Your task to perform on an android device: Open network settings Image 0: 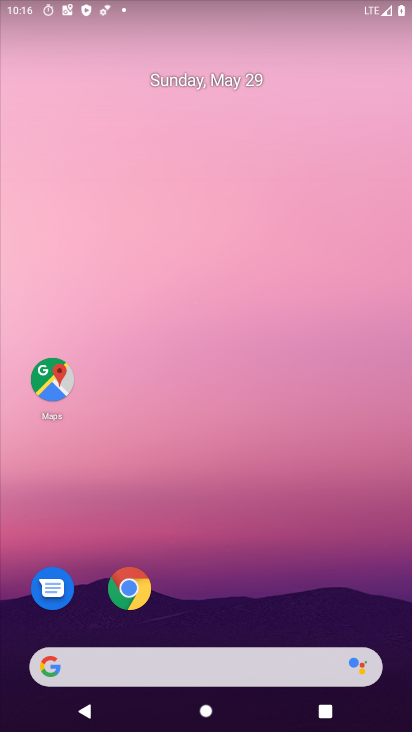
Step 0: drag from (249, 582) to (311, 81)
Your task to perform on an android device: Open network settings Image 1: 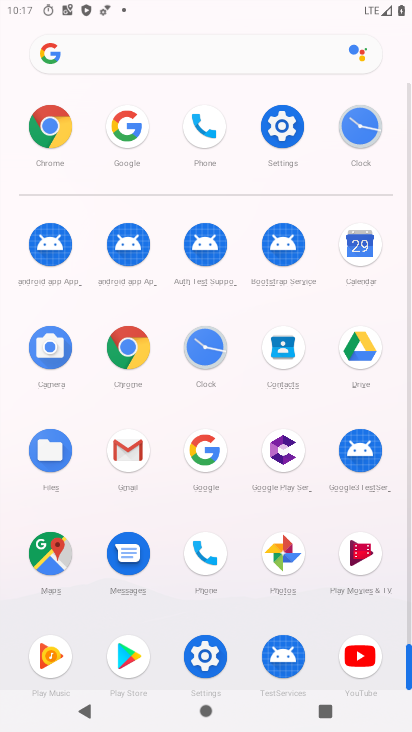
Step 1: click (219, 651)
Your task to perform on an android device: Open network settings Image 2: 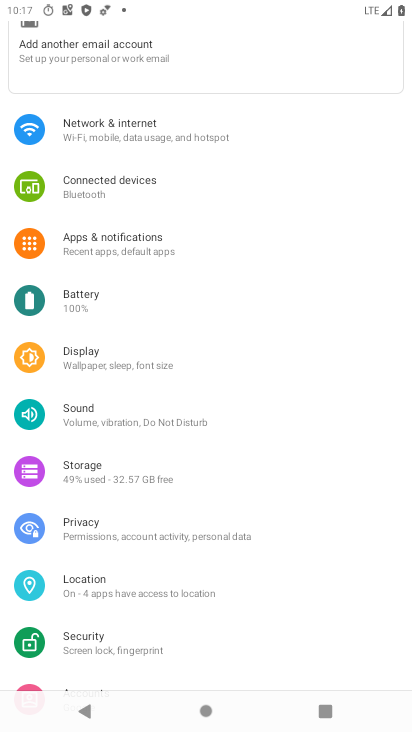
Step 2: click (142, 137)
Your task to perform on an android device: Open network settings Image 3: 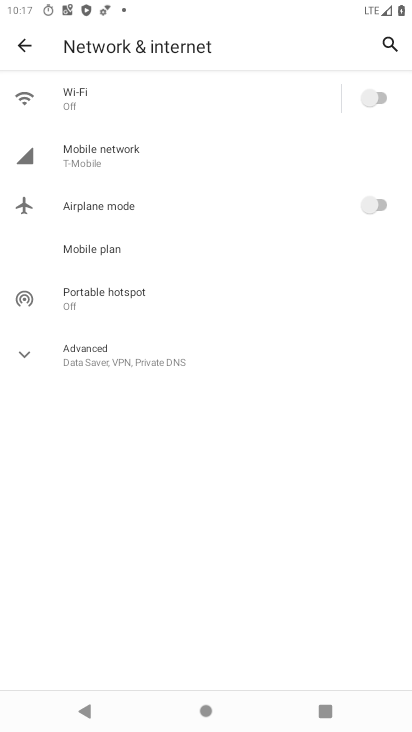
Step 3: click (79, 152)
Your task to perform on an android device: Open network settings Image 4: 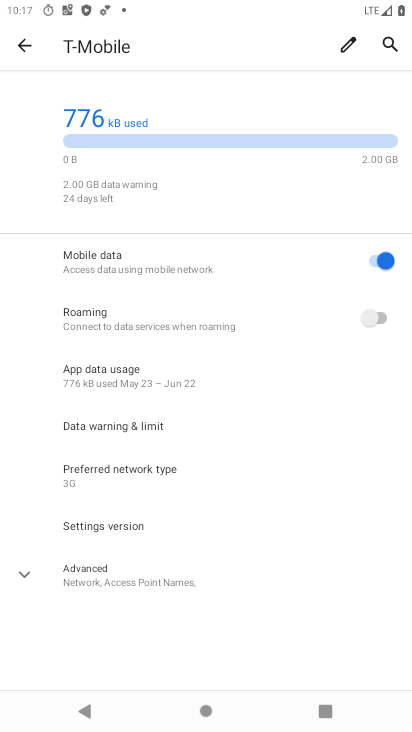
Step 4: task complete